Your task to perform on an android device: change notifications settings Image 0: 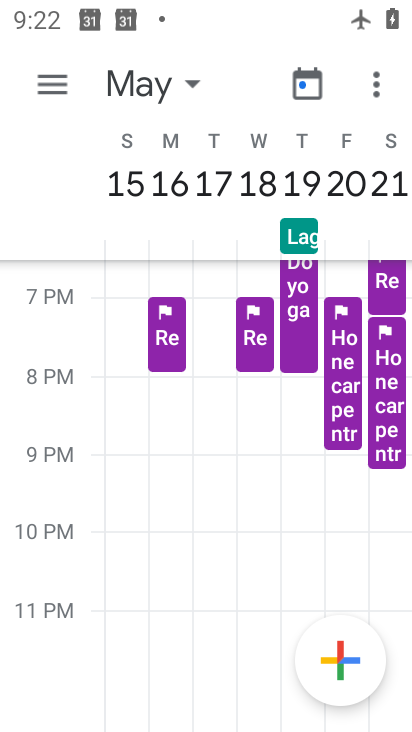
Step 0: press home button
Your task to perform on an android device: change notifications settings Image 1: 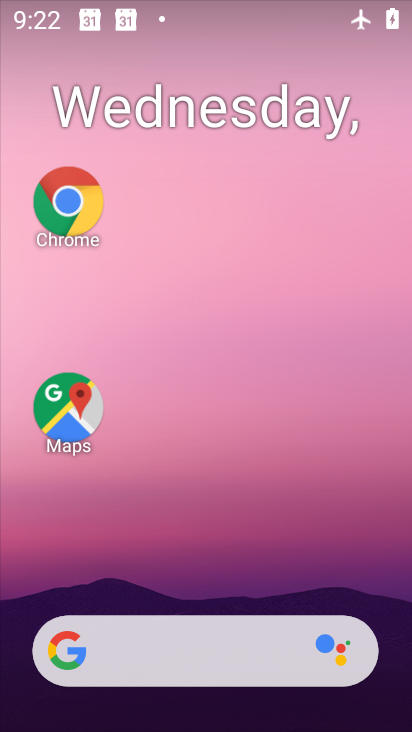
Step 1: drag from (208, 600) to (180, 171)
Your task to perform on an android device: change notifications settings Image 2: 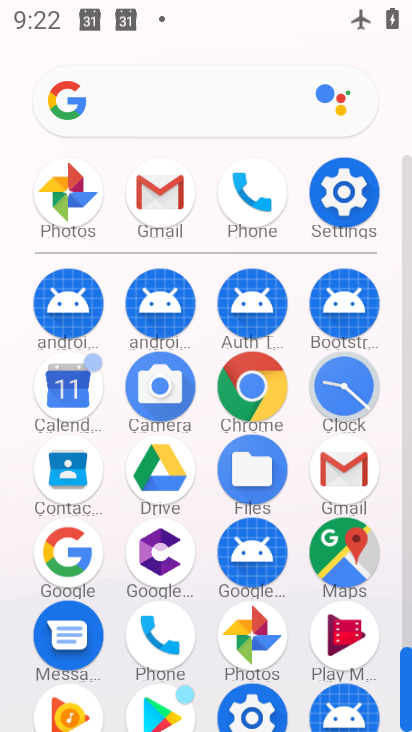
Step 2: click (326, 183)
Your task to perform on an android device: change notifications settings Image 3: 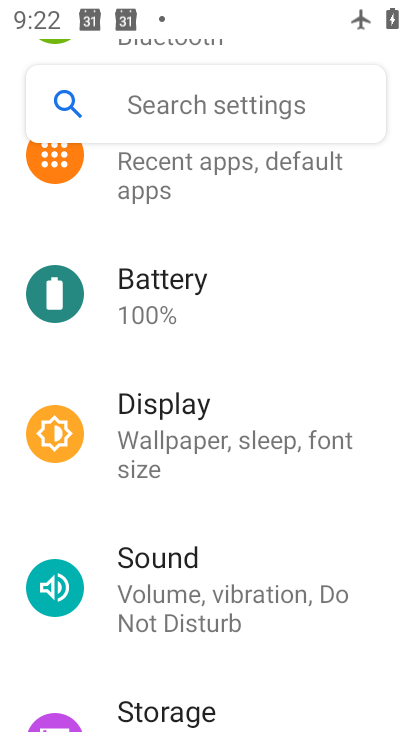
Step 3: click (258, 175)
Your task to perform on an android device: change notifications settings Image 4: 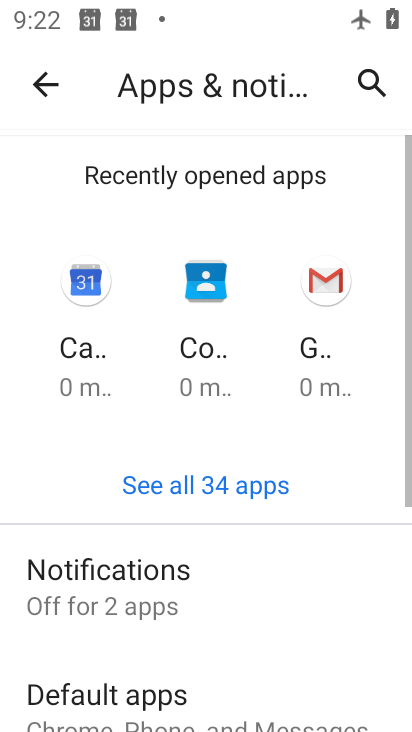
Step 4: click (202, 556)
Your task to perform on an android device: change notifications settings Image 5: 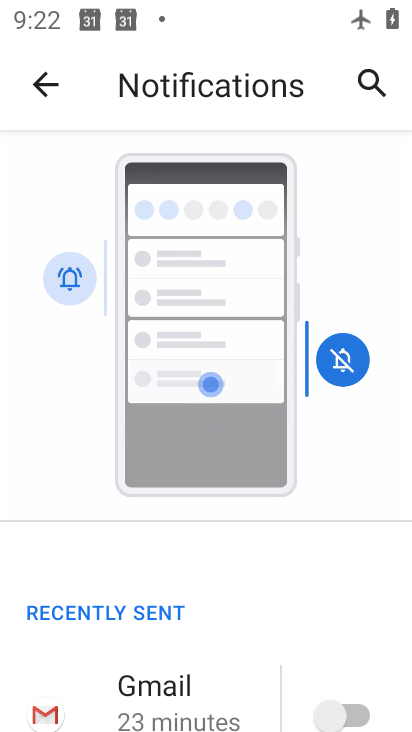
Step 5: drag from (184, 640) to (182, 143)
Your task to perform on an android device: change notifications settings Image 6: 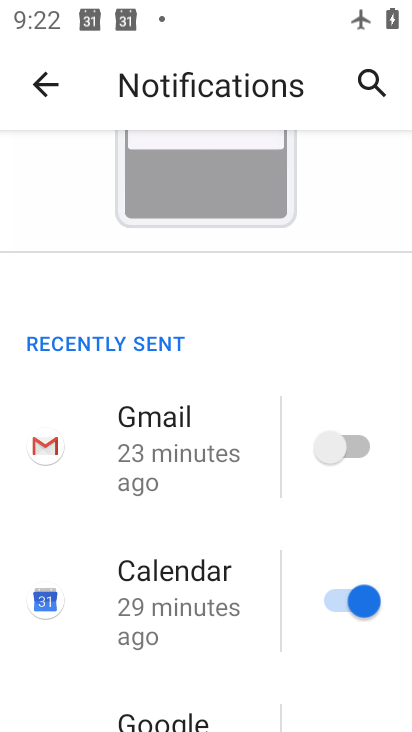
Step 6: drag from (254, 560) to (210, 192)
Your task to perform on an android device: change notifications settings Image 7: 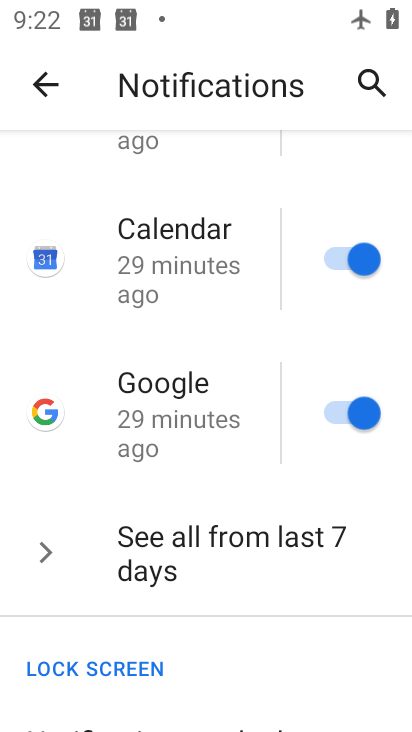
Step 7: click (247, 561)
Your task to perform on an android device: change notifications settings Image 8: 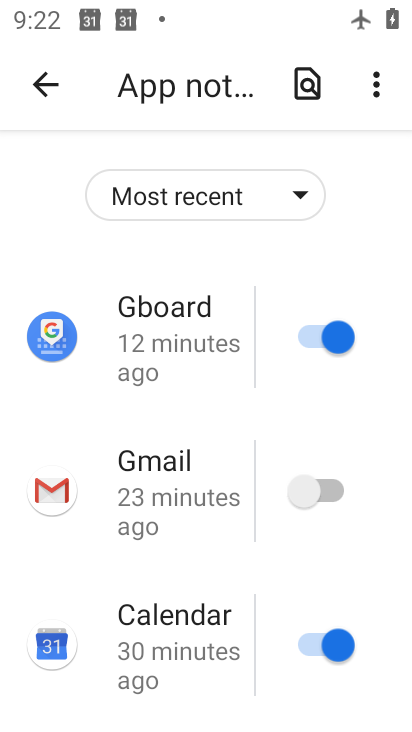
Step 8: click (221, 181)
Your task to perform on an android device: change notifications settings Image 9: 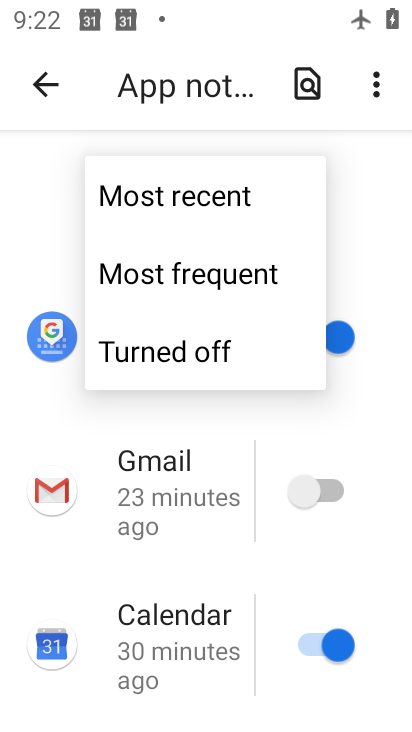
Step 9: click (205, 345)
Your task to perform on an android device: change notifications settings Image 10: 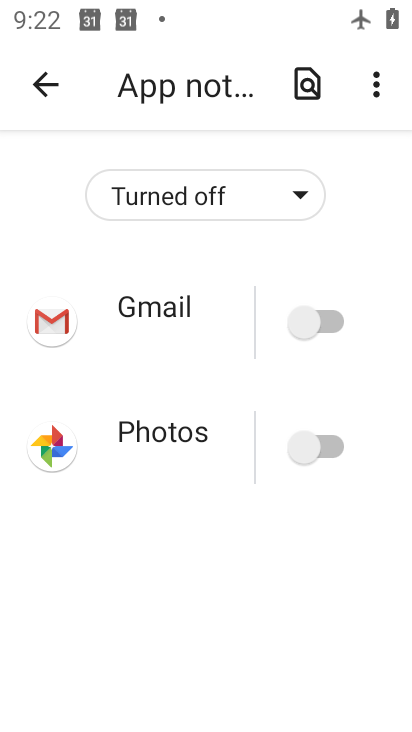
Step 10: task complete